Your task to perform on an android device: Open notification settings Image 0: 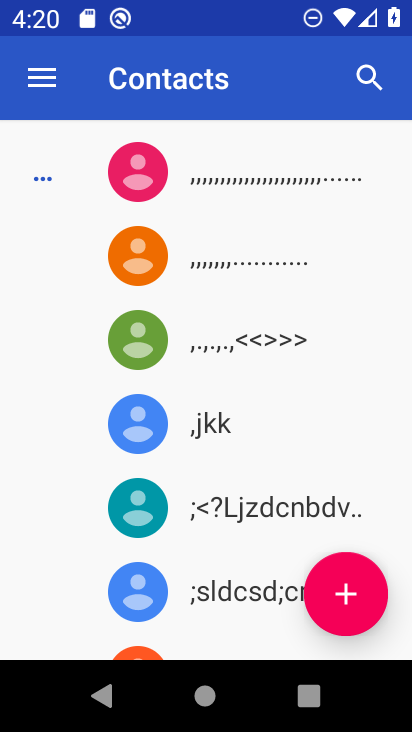
Step 0: press home button
Your task to perform on an android device: Open notification settings Image 1: 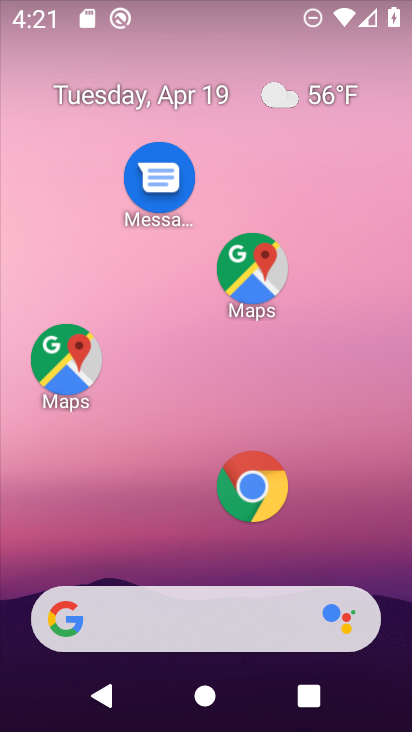
Step 1: drag from (182, 537) to (190, 35)
Your task to perform on an android device: Open notification settings Image 2: 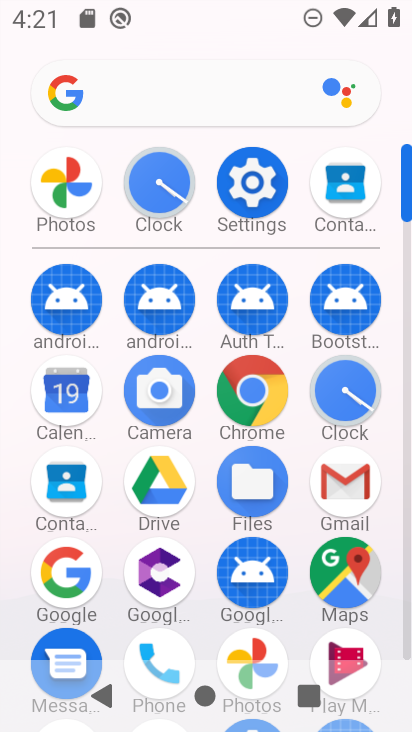
Step 2: click (250, 190)
Your task to perform on an android device: Open notification settings Image 3: 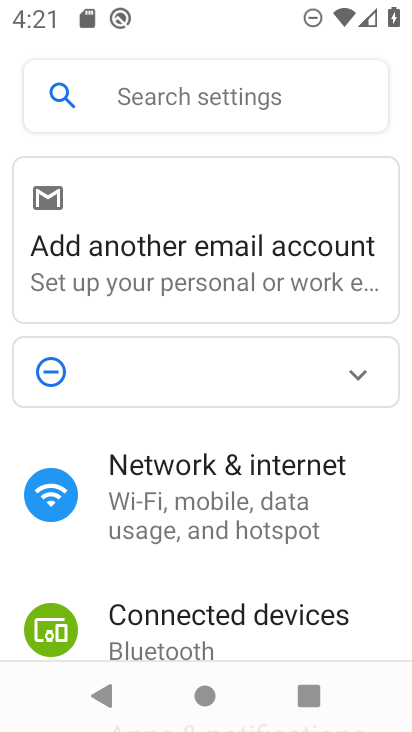
Step 3: drag from (244, 564) to (261, 153)
Your task to perform on an android device: Open notification settings Image 4: 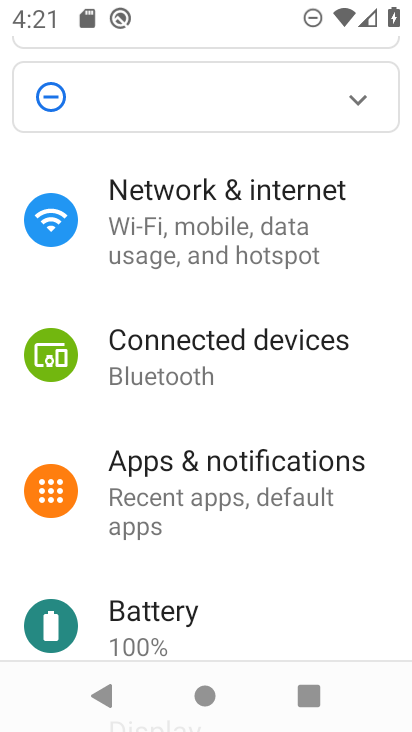
Step 4: click (261, 487)
Your task to perform on an android device: Open notification settings Image 5: 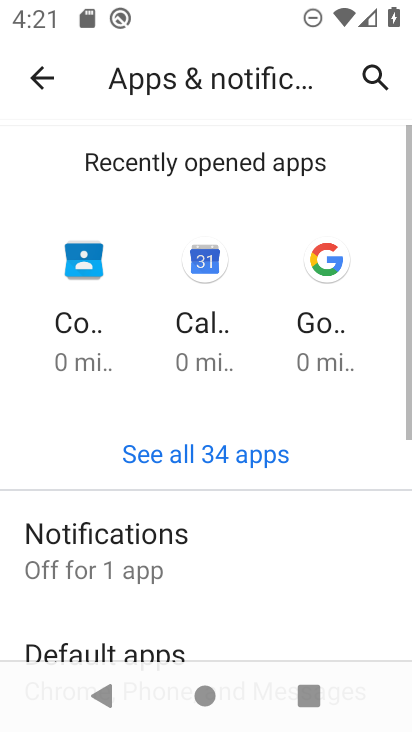
Step 5: click (205, 574)
Your task to perform on an android device: Open notification settings Image 6: 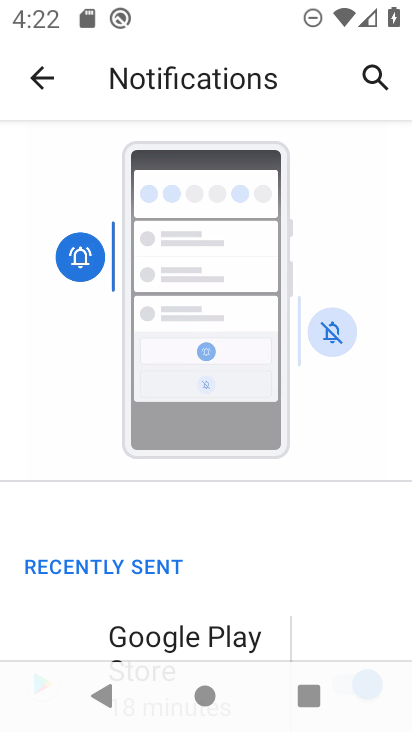
Step 6: task complete